Your task to perform on an android device: What is the news today? Image 0: 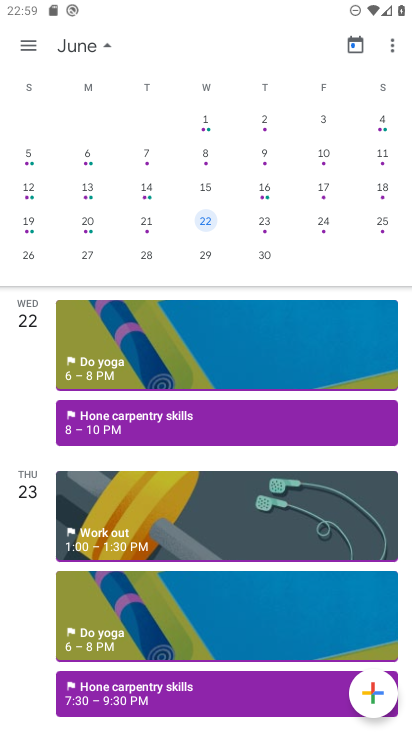
Step 0: drag from (242, 703) to (147, 113)
Your task to perform on an android device: What is the news today? Image 1: 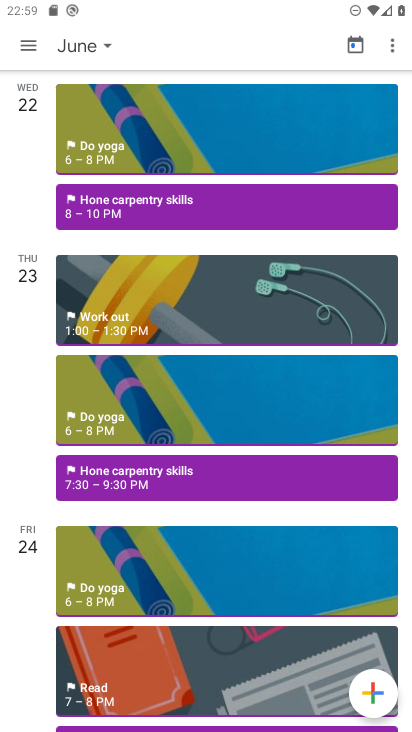
Step 1: task complete